Your task to perform on an android device: see tabs open on other devices in the chrome app Image 0: 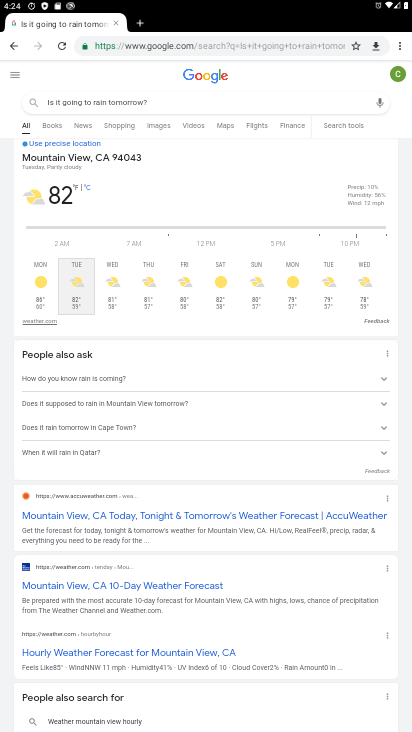
Step 0: drag from (397, 42) to (332, 117)
Your task to perform on an android device: see tabs open on other devices in the chrome app Image 1: 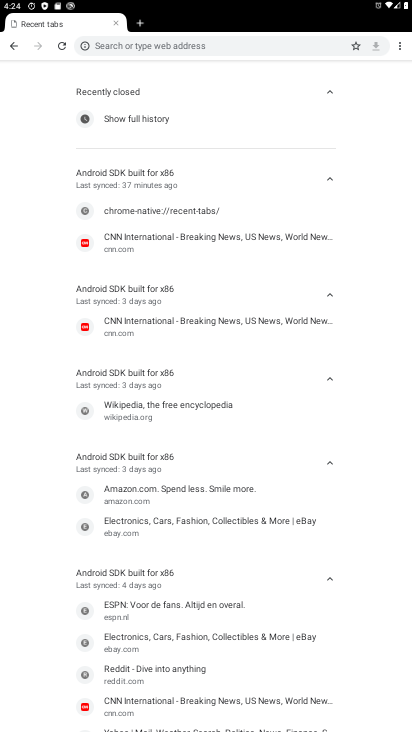
Step 1: task complete